Your task to perform on an android device: Clear all items from cart on costco. Search for lg ultragear on costco, select the first entry, add it to the cart, then select checkout. Image 0: 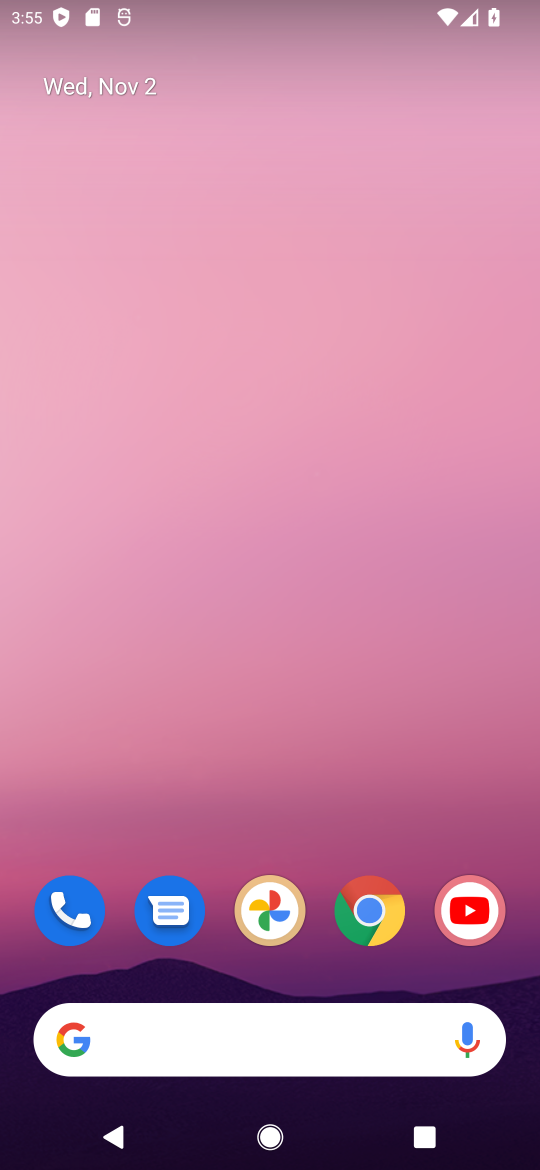
Step 0: click (369, 911)
Your task to perform on an android device: Clear all items from cart on costco. Search for lg ultragear on costco, select the first entry, add it to the cart, then select checkout. Image 1: 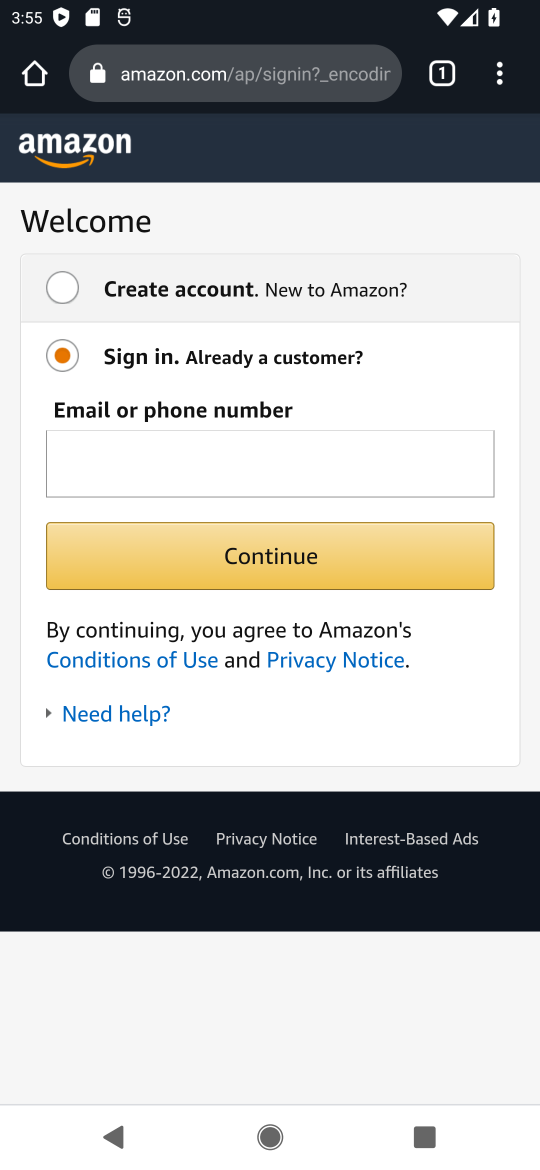
Step 1: click (212, 79)
Your task to perform on an android device: Clear all items from cart on costco. Search for lg ultragear on costco, select the first entry, add it to the cart, then select checkout. Image 2: 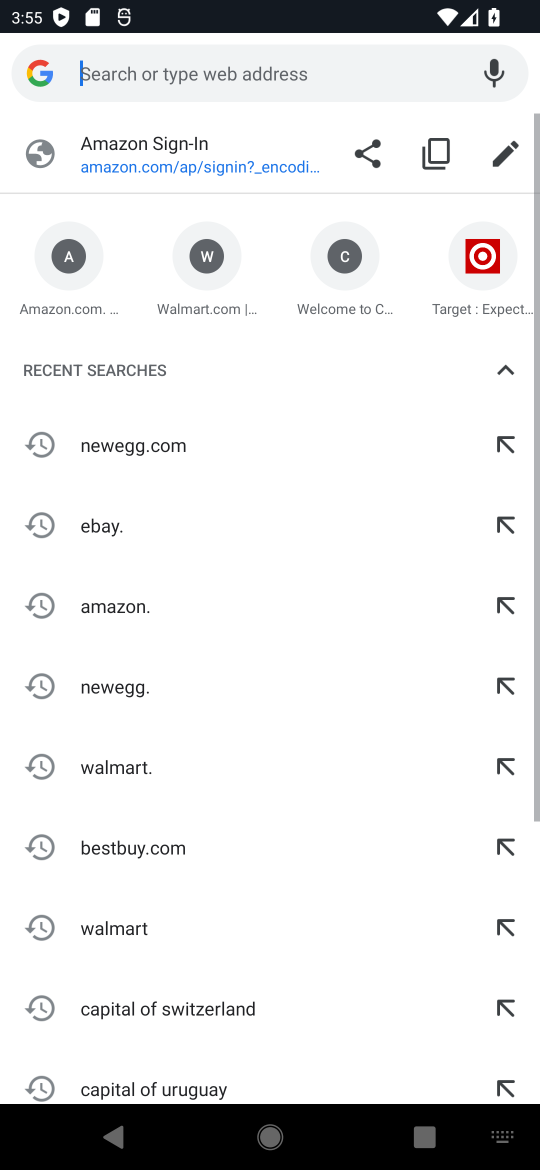
Step 2: type "costco"
Your task to perform on an android device: Clear all items from cart on costco. Search for lg ultragear on costco, select the first entry, add it to the cart, then select checkout. Image 3: 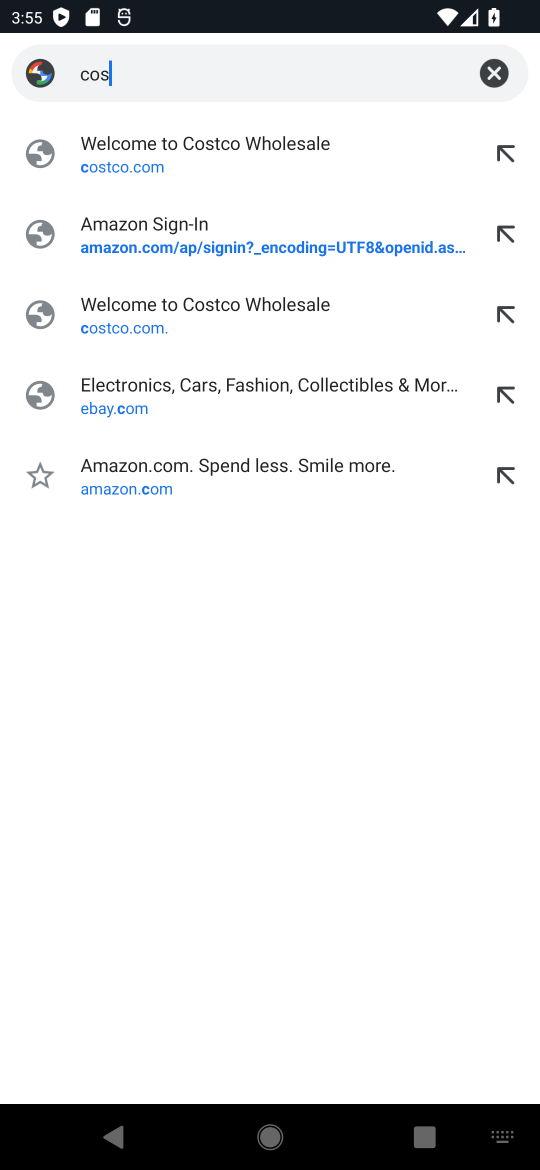
Step 3: type ""
Your task to perform on an android device: Clear all items from cart on costco. Search for lg ultragear on costco, select the first entry, add it to the cart, then select checkout. Image 4: 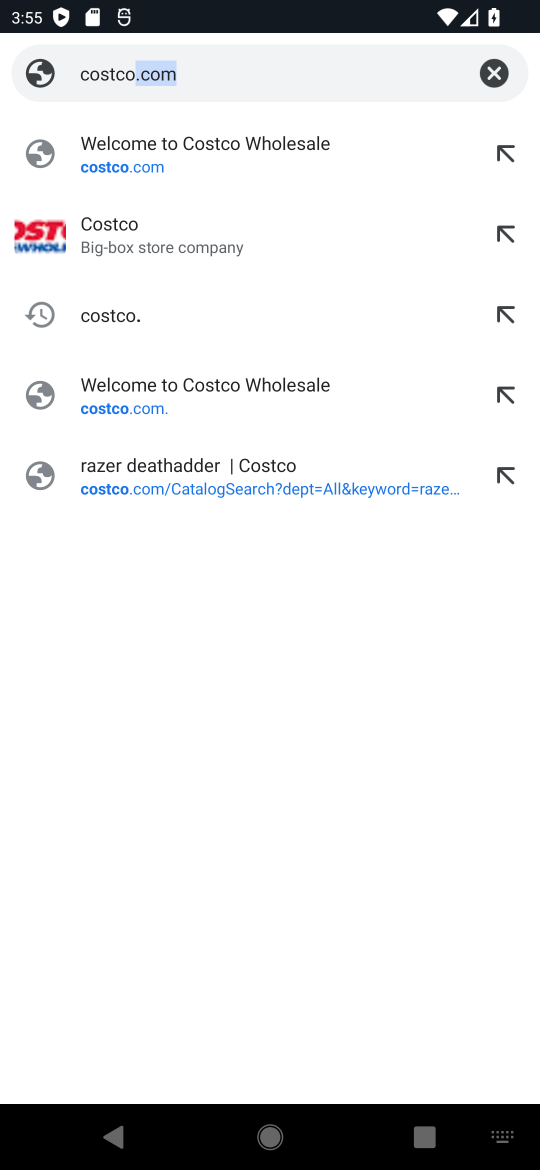
Step 4: click (193, 142)
Your task to perform on an android device: Clear all items from cart on costco. Search for lg ultragear on costco, select the first entry, add it to the cart, then select checkout. Image 5: 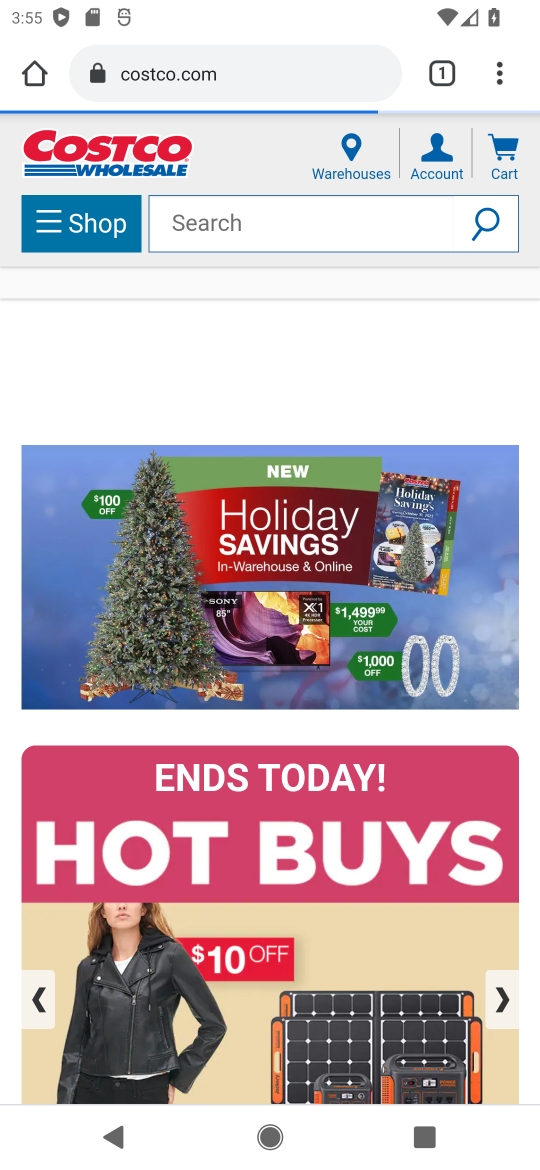
Step 5: click (516, 141)
Your task to perform on an android device: Clear all items from cart on costco. Search for lg ultragear on costco, select the first entry, add it to the cart, then select checkout. Image 6: 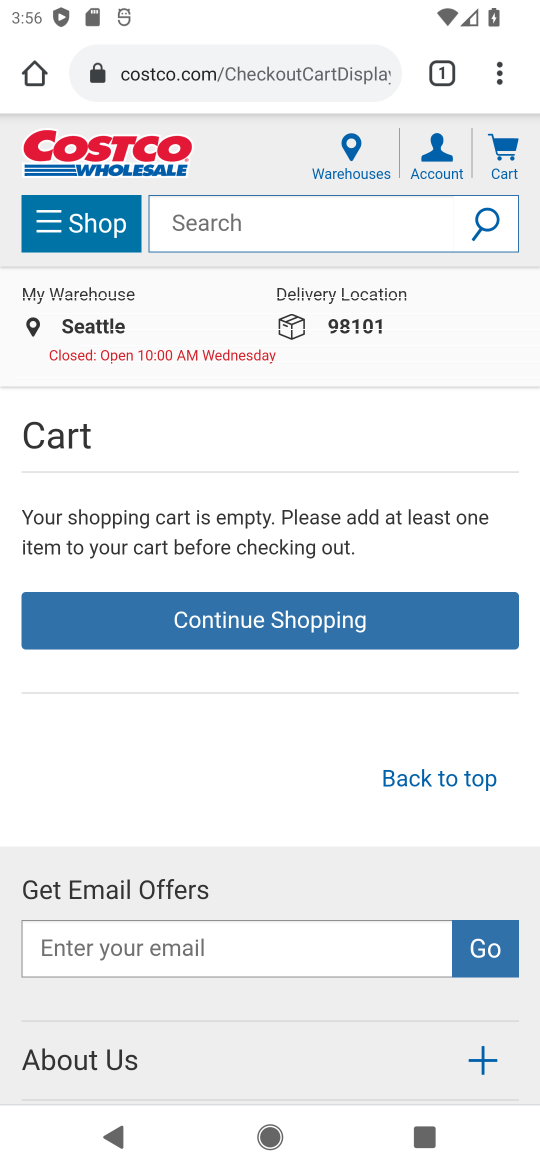
Step 6: click (516, 146)
Your task to perform on an android device: Clear all items from cart on costco. Search for lg ultragear on costco, select the first entry, add it to the cart, then select checkout. Image 7: 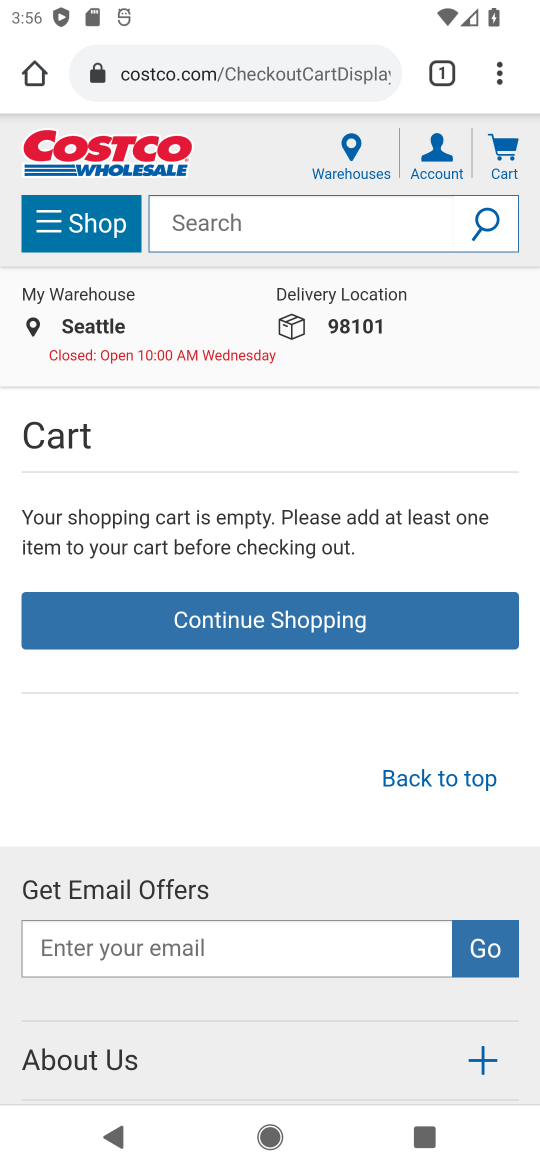
Step 7: click (325, 216)
Your task to perform on an android device: Clear all items from cart on costco. Search for lg ultragear on costco, select the first entry, add it to the cart, then select checkout. Image 8: 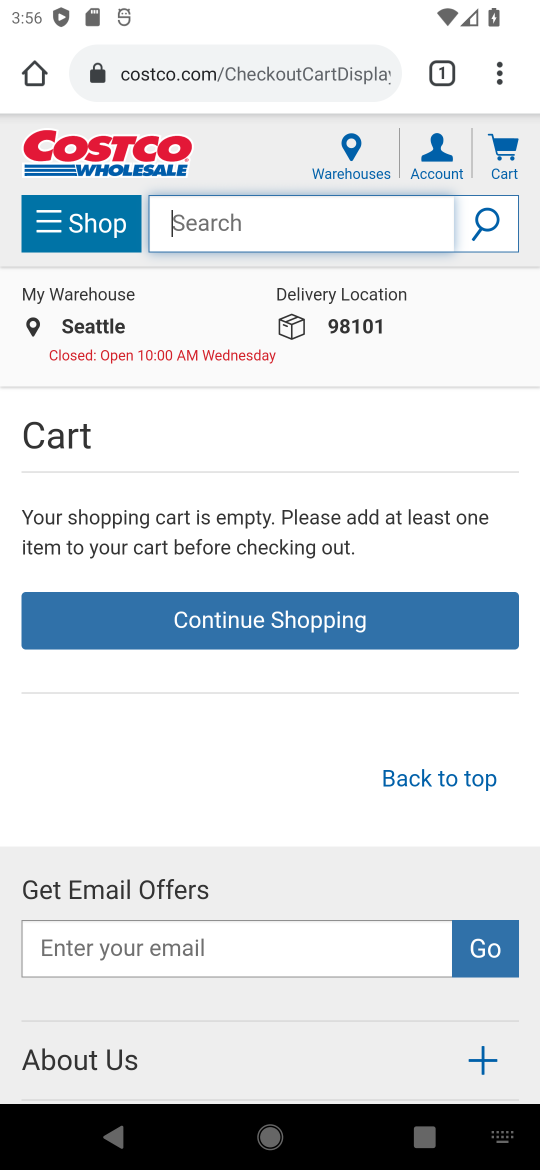
Step 8: type "lg ultragear "
Your task to perform on an android device: Clear all items from cart on costco. Search for lg ultragear on costco, select the first entry, add it to the cart, then select checkout. Image 9: 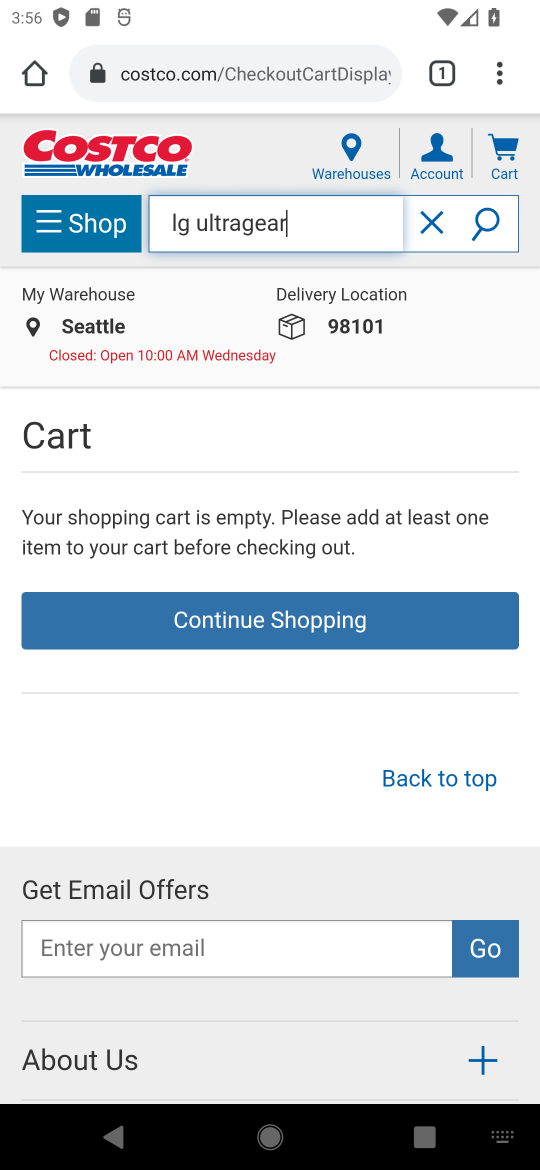
Step 9: type ""
Your task to perform on an android device: Clear all items from cart on costco. Search for lg ultragear on costco, select the first entry, add it to the cart, then select checkout. Image 10: 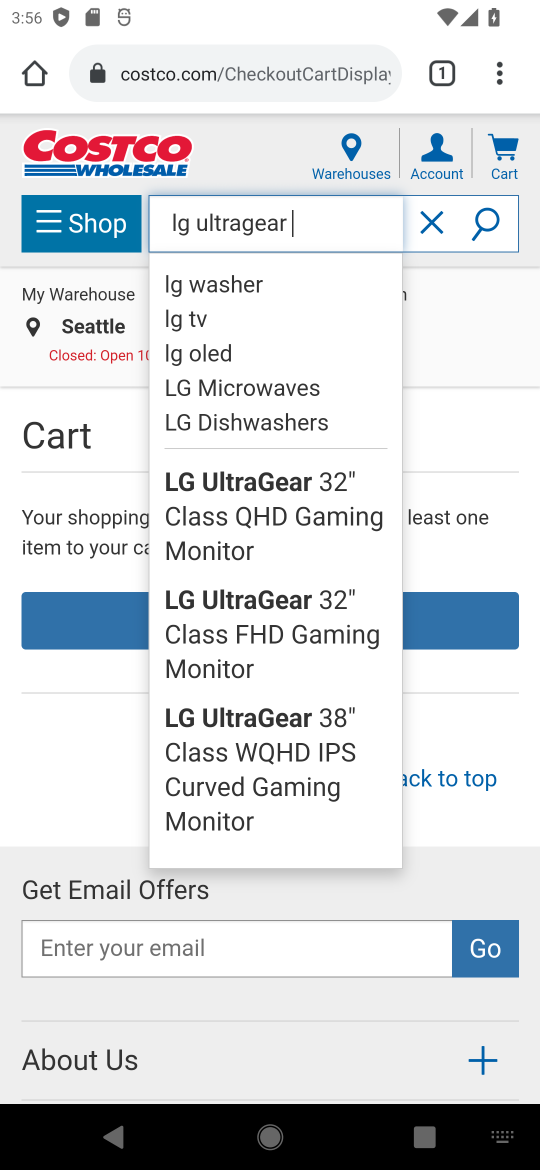
Step 10: press enter
Your task to perform on an android device: Clear all items from cart on costco. Search for lg ultragear on costco, select the first entry, add it to the cart, then select checkout. Image 11: 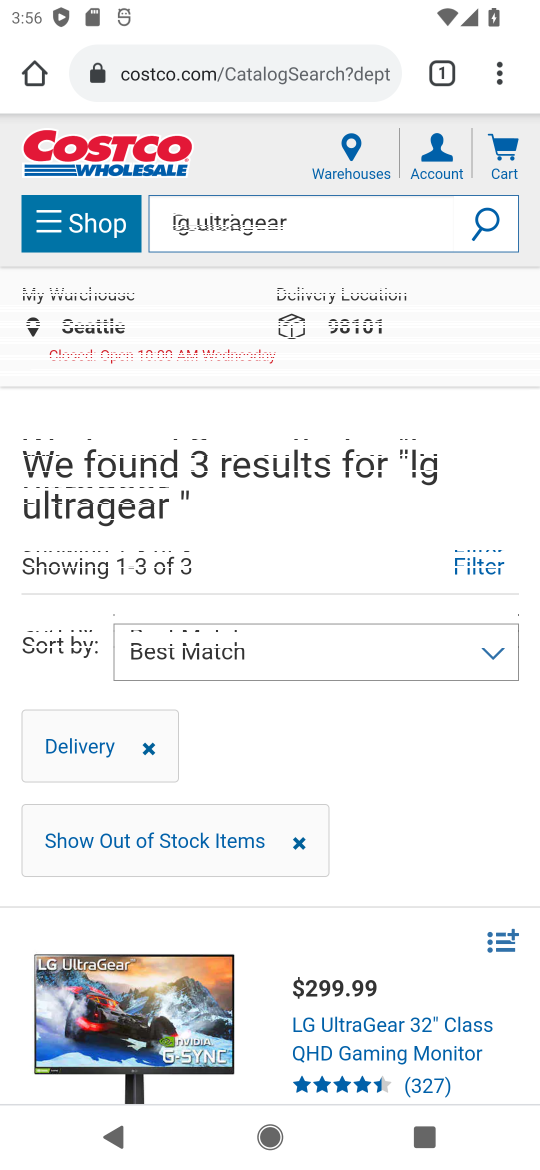
Step 11: click (387, 1054)
Your task to perform on an android device: Clear all items from cart on costco. Search for lg ultragear on costco, select the first entry, add it to the cart, then select checkout. Image 12: 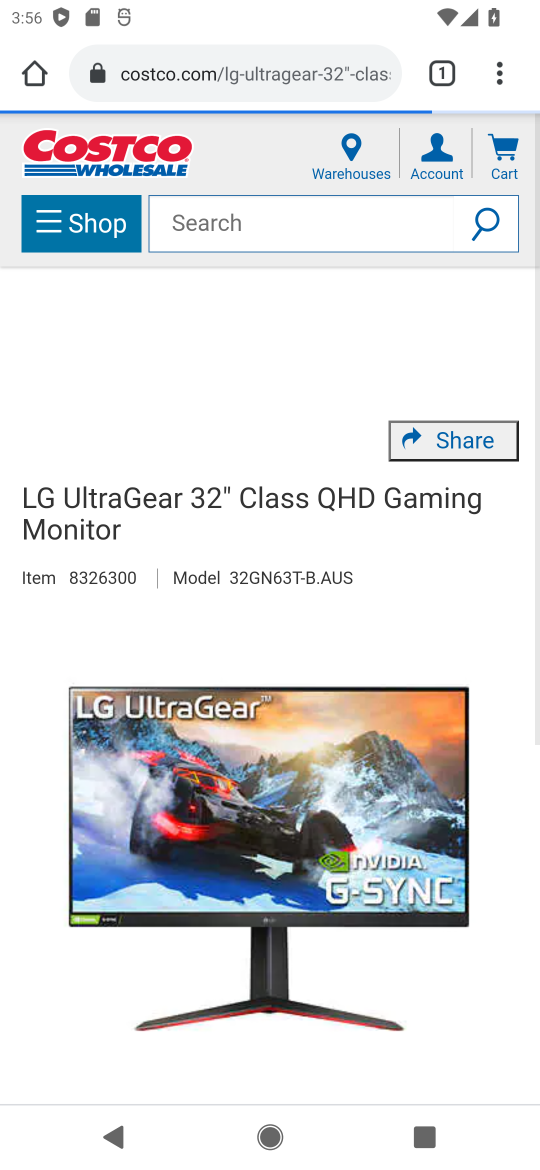
Step 12: drag from (402, 984) to (392, 534)
Your task to perform on an android device: Clear all items from cart on costco. Search for lg ultragear on costco, select the first entry, add it to the cart, then select checkout. Image 13: 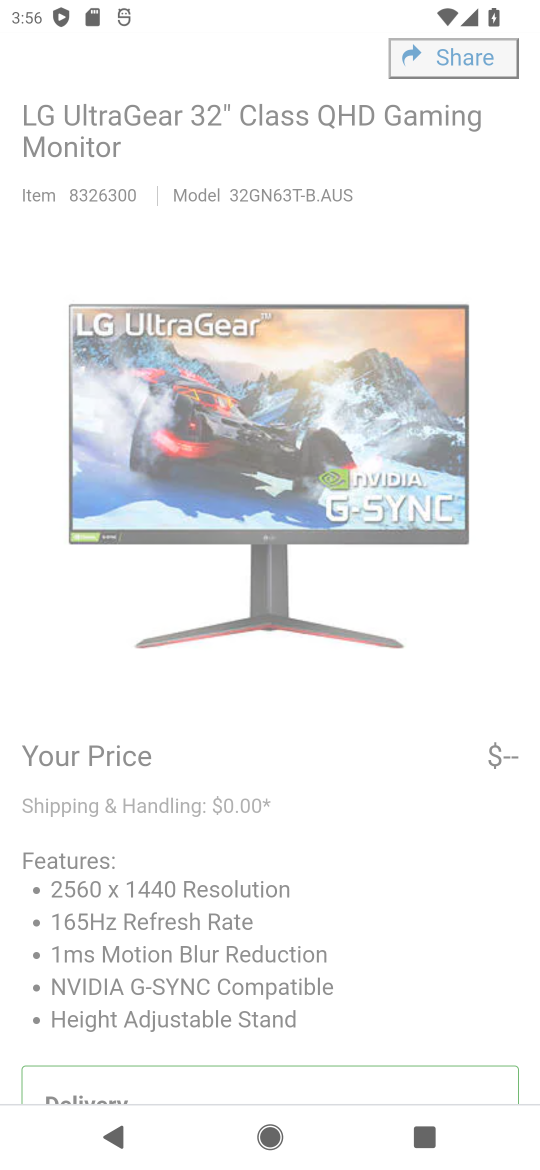
Step 13: drag from (301, 941) to (347, 402)
Your task to perform on an android device: Clear all items from cart on costco. Search for lg ultragear on costco, select the first entry, add it to the cart, then select checkout. Image 14: 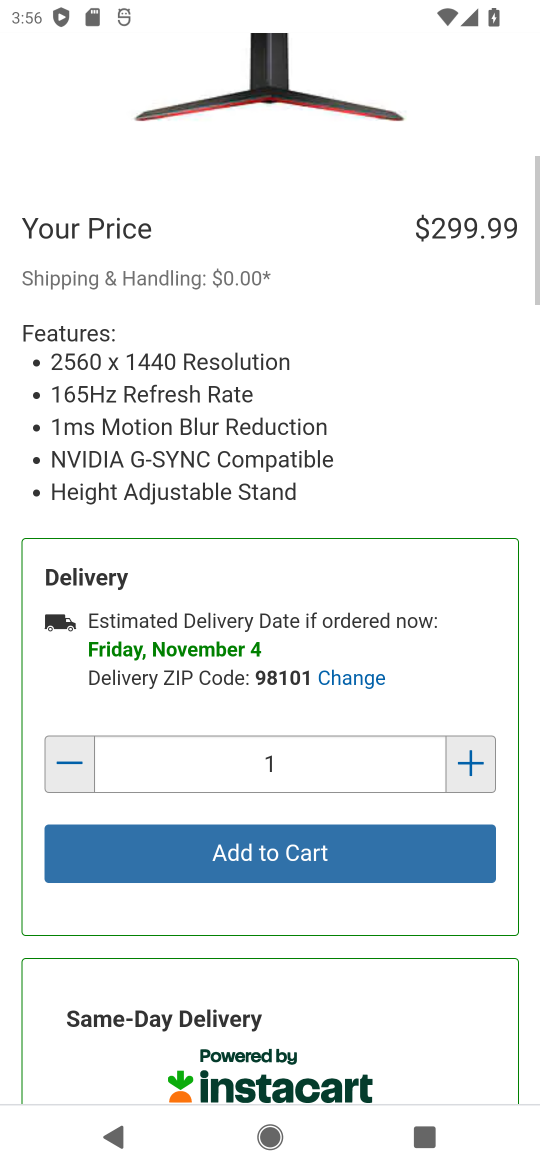
Step 14: click (343, 859)
Your task to perform on an android device: Clear all items from cart on costco. Search for lg ultragear on costco, select the first entry, add it to the cart, then select checkout. Image 15: 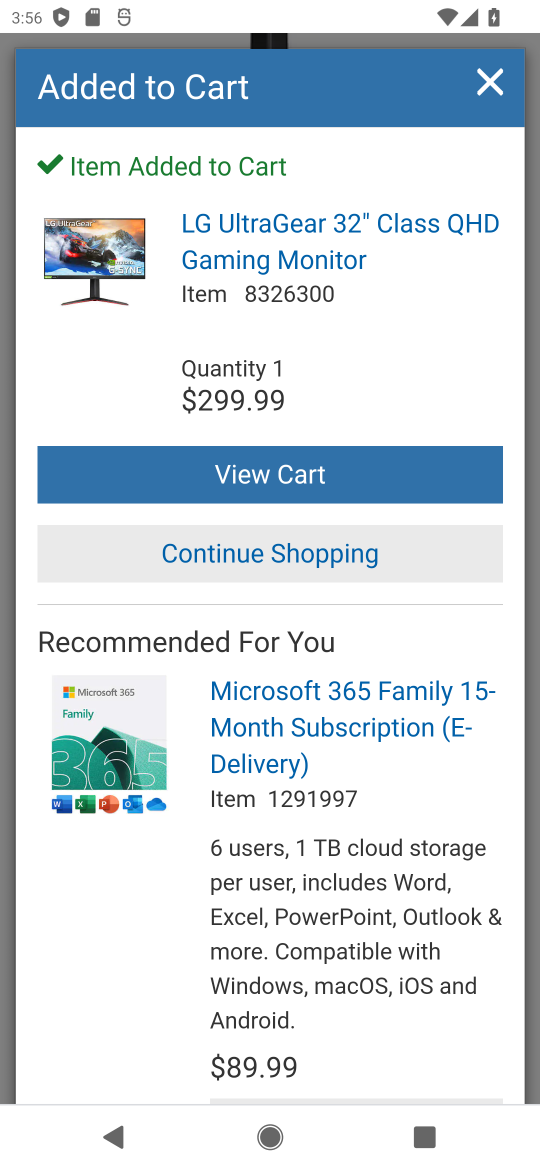
Step 15: click (360, 485)
Your task to perform on an android device: Clear all items from cart on costco. Search for lg ultragear on costco, select the first entry, add it to the cart, then select checkout. Image 16: 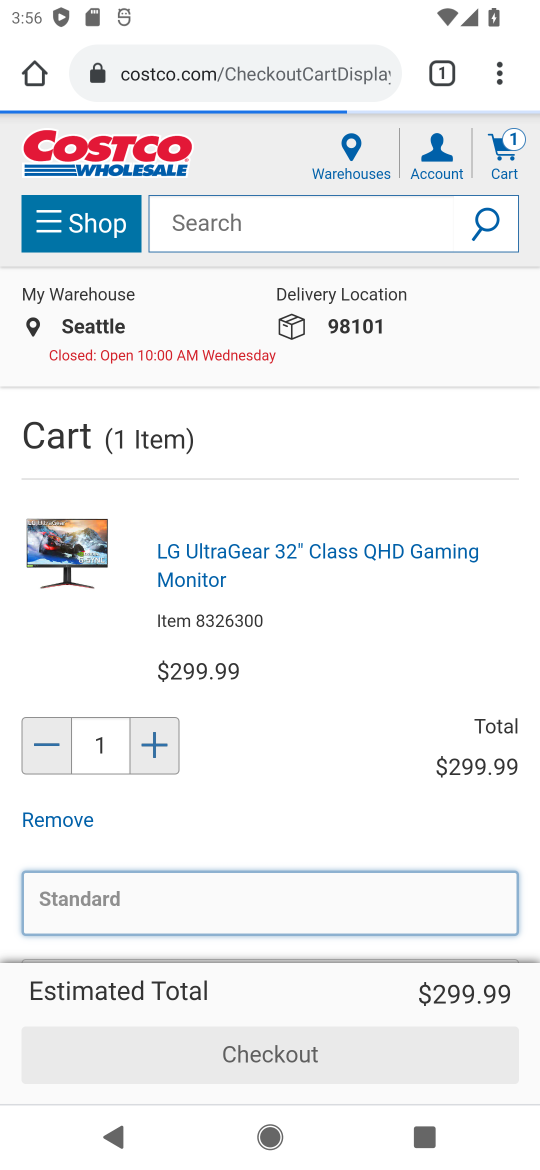
Step 16: drag from (302, 744) to (304, 467)
Your task to perform on an android device: Clear all items from cart on costco. Search for lg ultragear on costco, select the first entry, add it to the cart, then select checkout. Image 17: 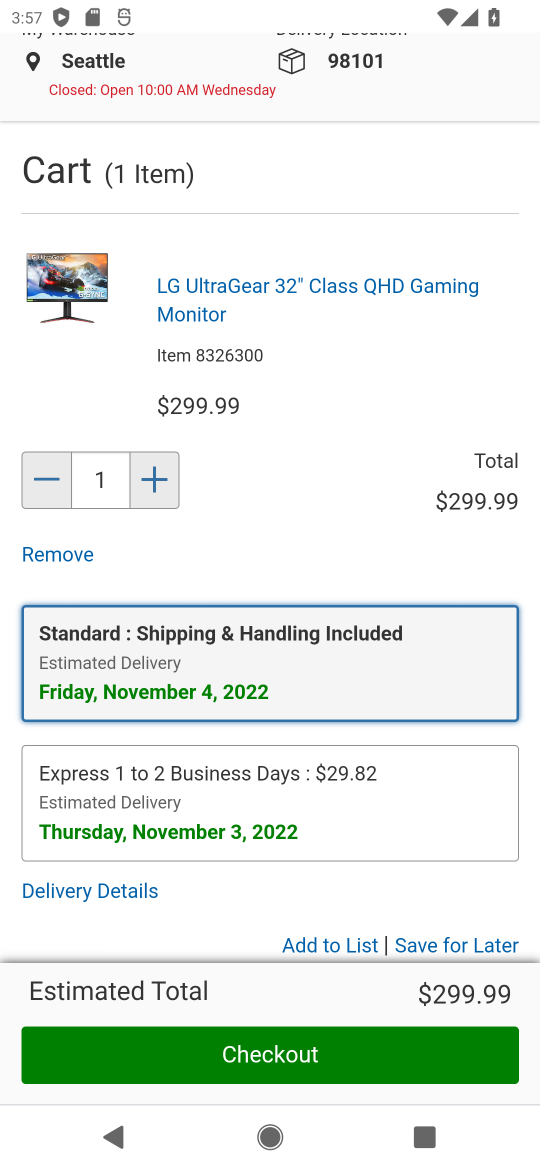
Step 17: drag from (369, 773) to (381, 488)
Your task to perform on an android device: Clear all items from cart on costco. Search for lg ultragear on costco, select the first entry, add it to the cart, then select checkout. Image 18: 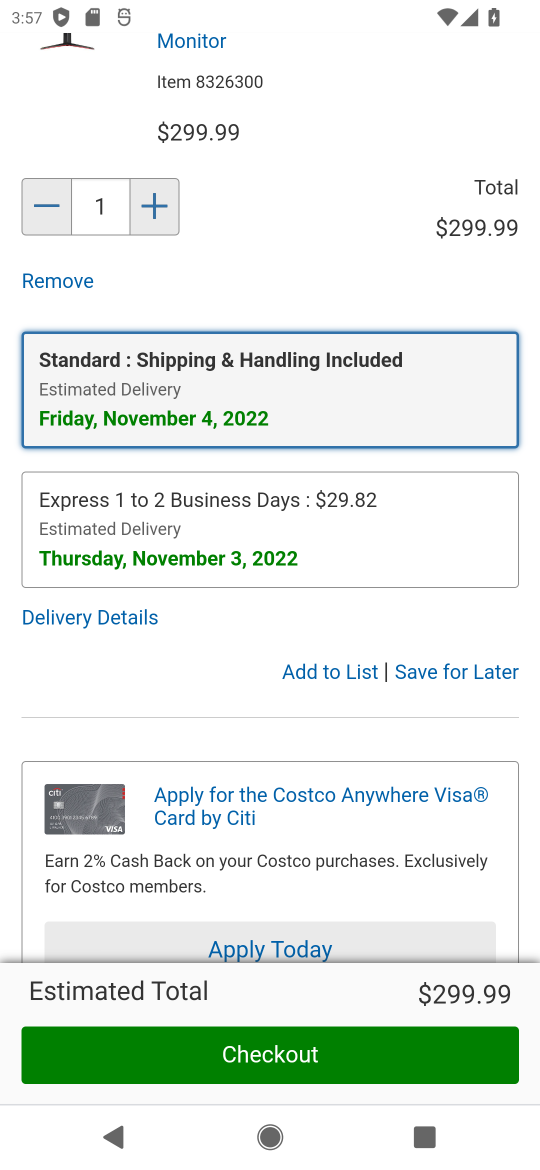
Step 18: click (374, 1045)
Your task to perform on an android device: Clear all items from cart on costco. Search for lg ultragear on costco, select the first entry, add it to the cart, then select checkout. Image 19: 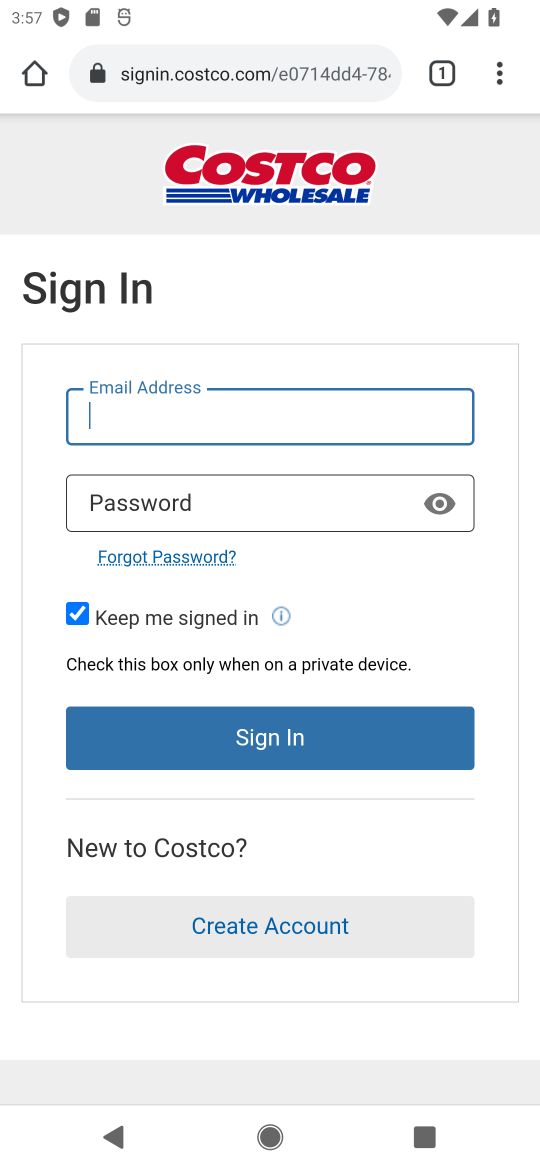
Step 19: task complete